Your task to perform on an android device: Open Google Maps and go to "Timeline" Image 0: 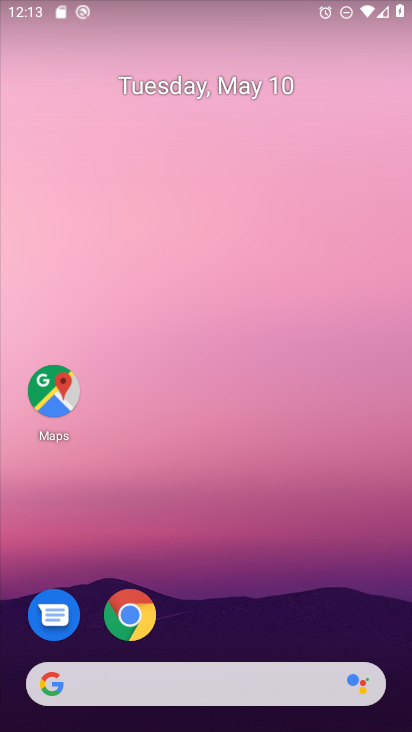
Step 0: drag from (286, 705) to (411, 267)
Your task to perform on an android device: Open Google Maps and go to "Timeline" Image 1: 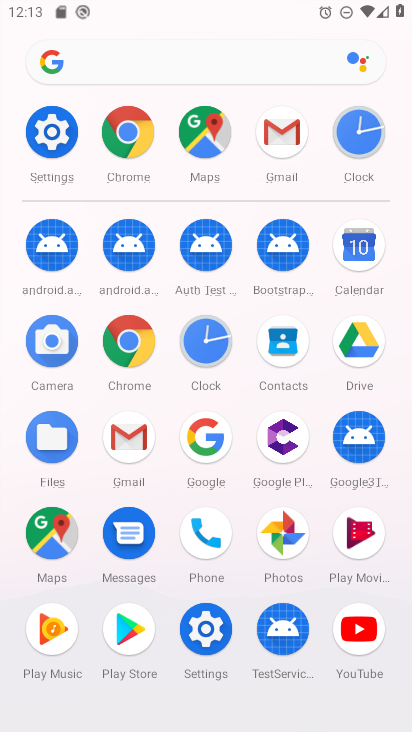
Step 1: click (55, 519)
Your task to perform on an android device: Open Google Maps and go to "Timeline" Image 2: 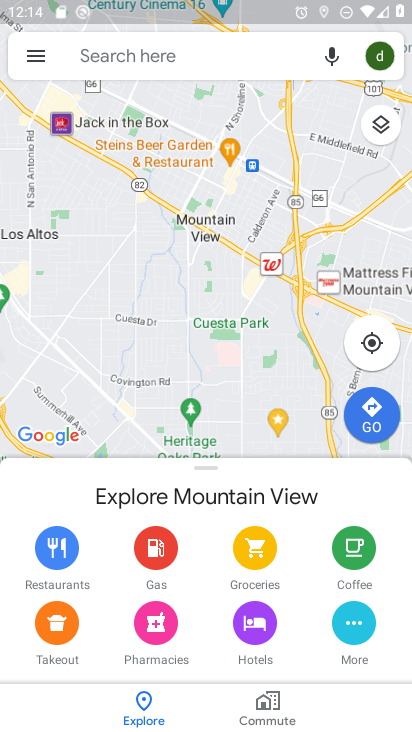
Step 2: click (37, 58)
Your task to perform on an android device: Open Google Maps and go to "Timeline" Image 3: 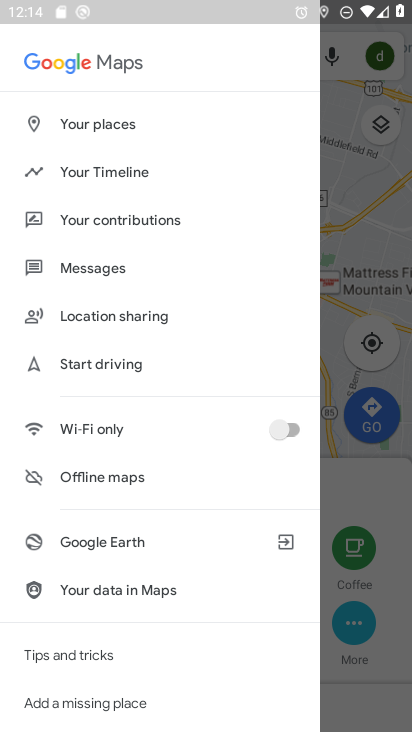
Step 3: click (92, 176)
Your task to perform on an android device: Open Google Maps and go to "Timeline" Image 4: 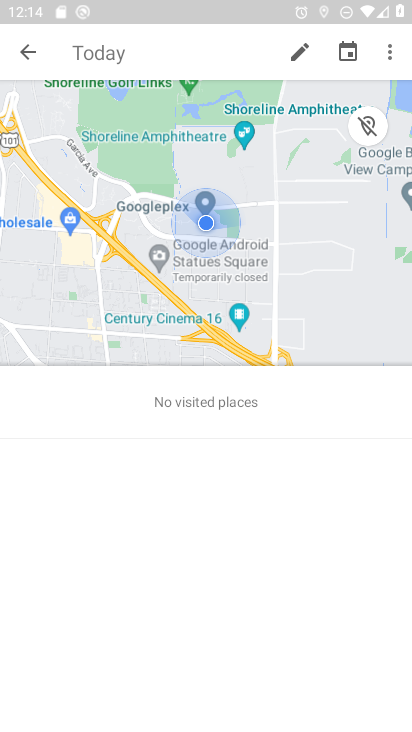
Step 4: task complete